Your task to perform on an android device: open app "Adobe Acrobat Reader: Edit PDF" (install if not already installed) Image 0: 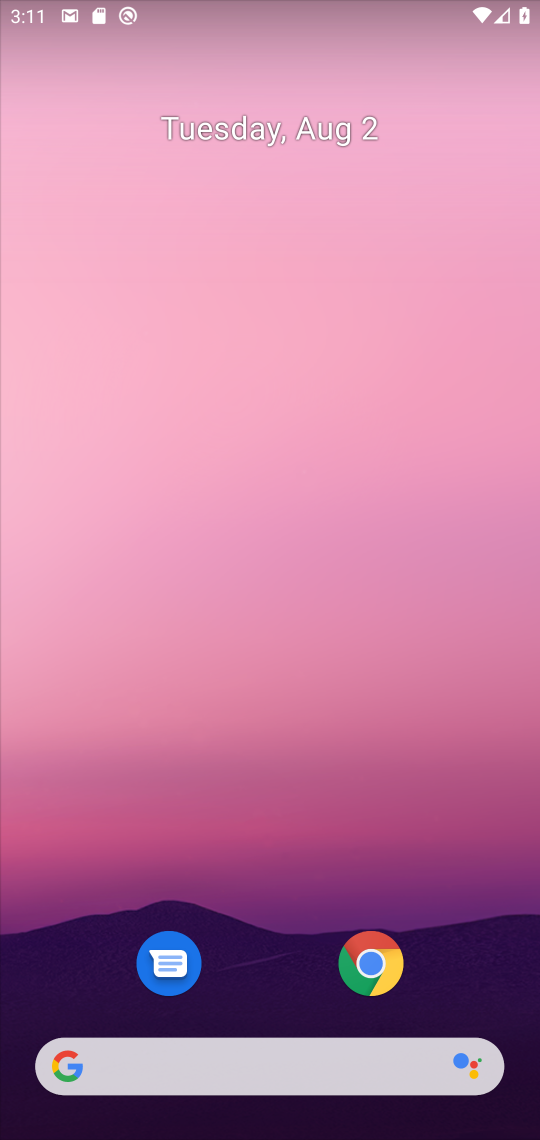
Step 0: drag from (263, 966) to (234, 201)
Your task to perform on an android device: open app "Adobe Acrobat Reader: Edit PDF" (install if not already installed) Image 1: 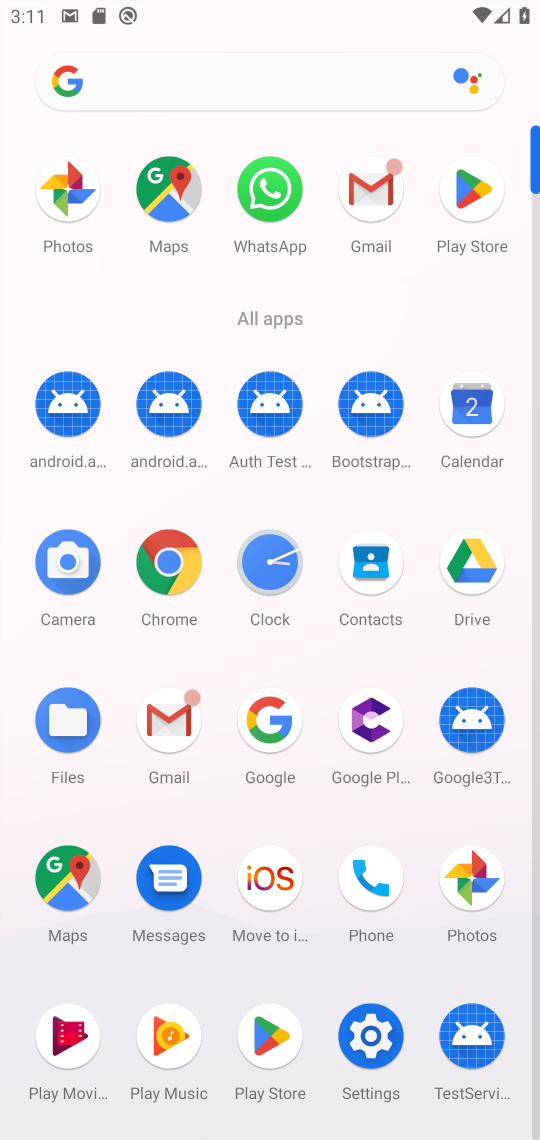
Step 1: click (482, 169)
Your task to perform on an android device: open app "Adobe Acrobat Reader: Edit PDF" (install if not already installed) Image 2: 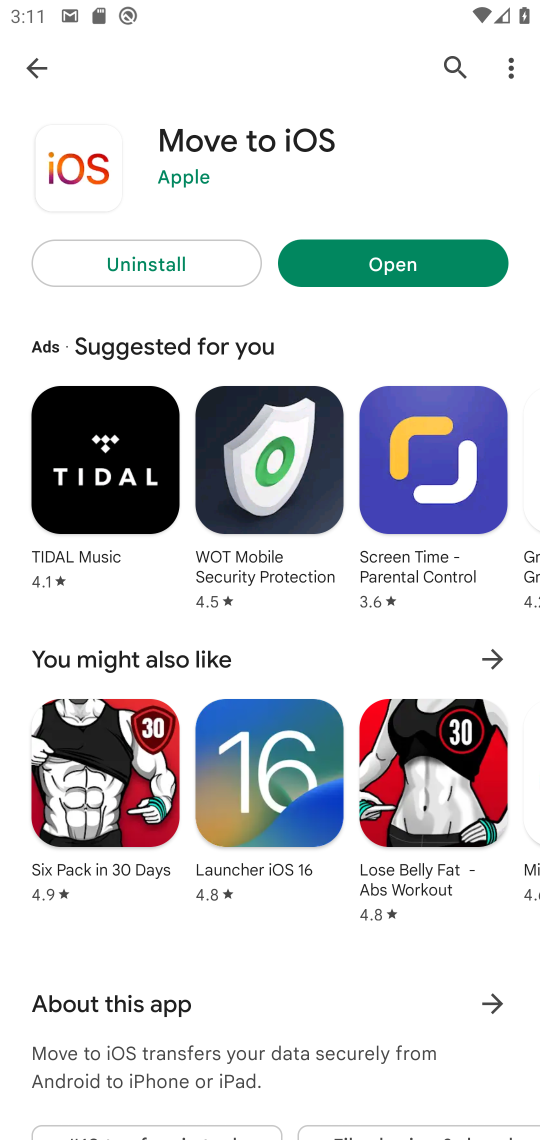
Step 2: click (451, 62)
Your task to perform on an android device: open app "Adobe Acrobat Reader: Edit PDF" (install if not already installed) Image 3: 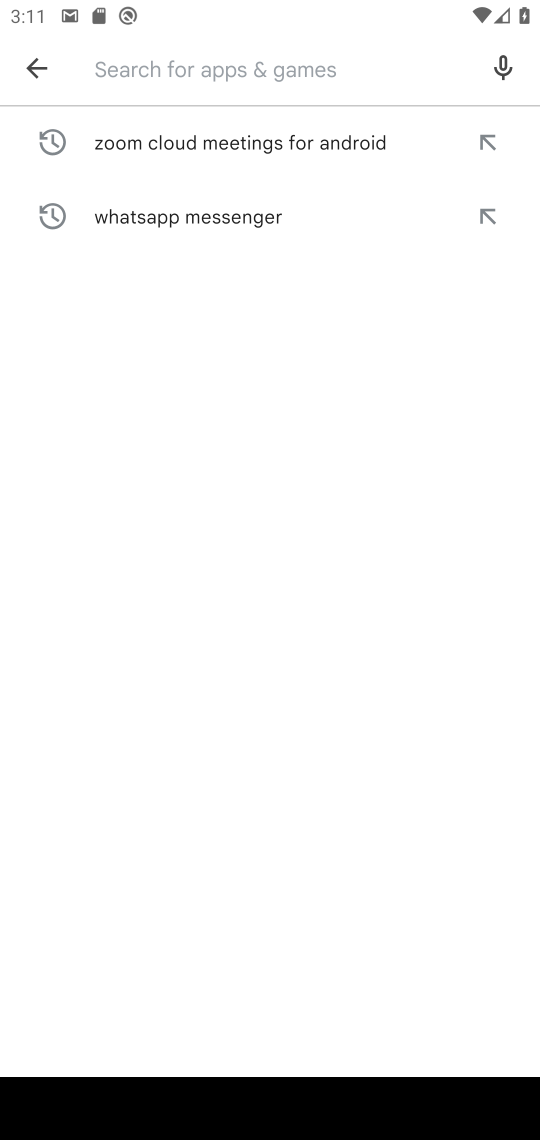
Step 3: type "adobe acrobat reader: edit pdf"
Your task to perform on an android device: open app "Adobe Acrobat Reader: Edit PDF" (install if not already installed) Image 4: 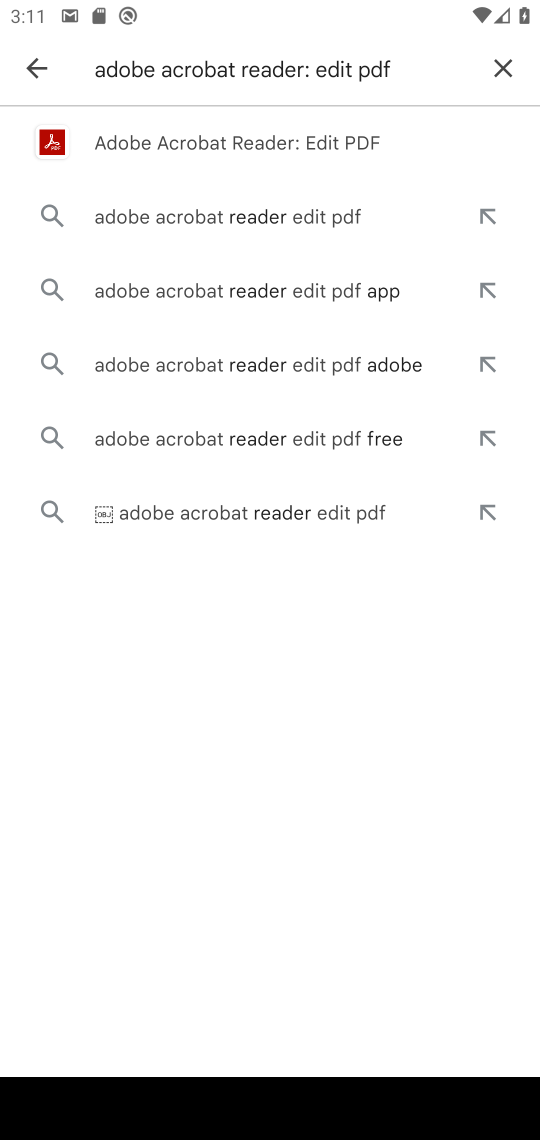
Step 4: click (359, 150)
Your task to perform on an android device: open app "Adobe Acrobat Reader: Edit PDF" (install if not already installed) Image 5: 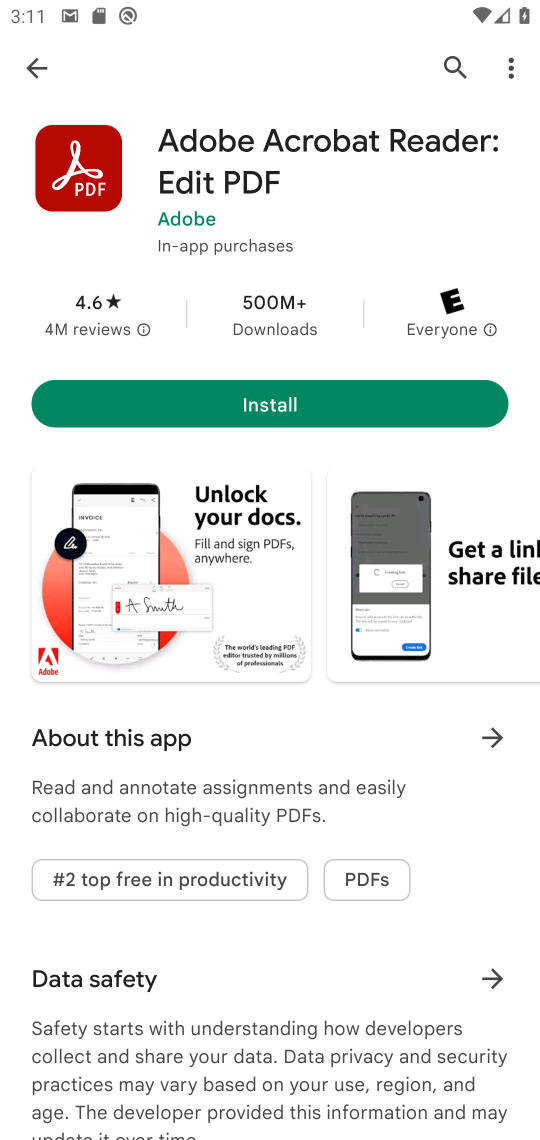
Step 5: click (333, 412)
Your task to perform on an android device: open app "Adobe Acrobat Reader: Edit PDF" (install if not already installed) Image 6: 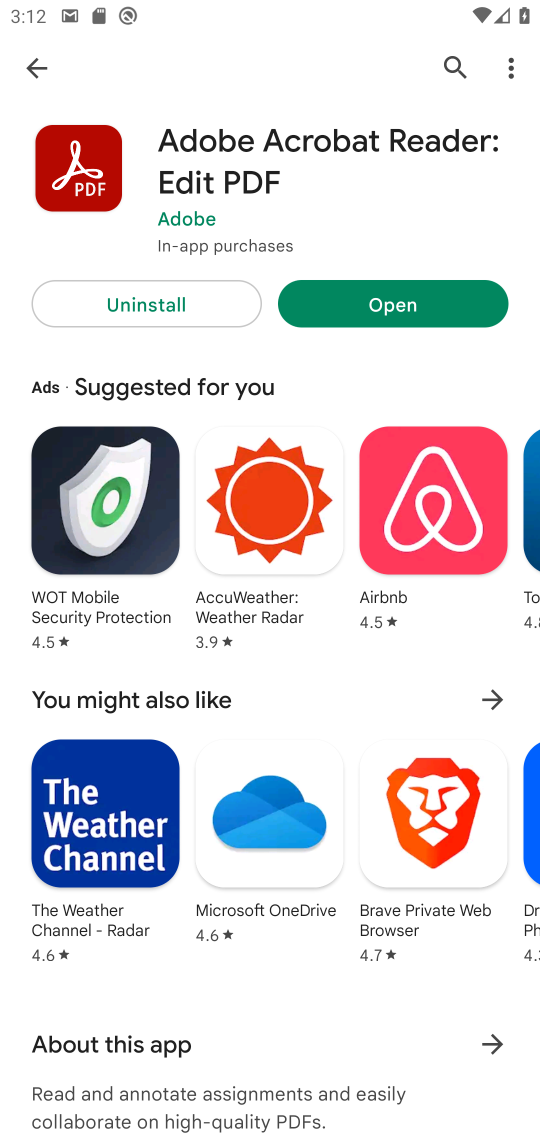
Step 6: click (432, 285)
Your task to perform on an android device: open app "Adobe Acrobat Reader: Edit PDF" (install if not already installed) Image 7: 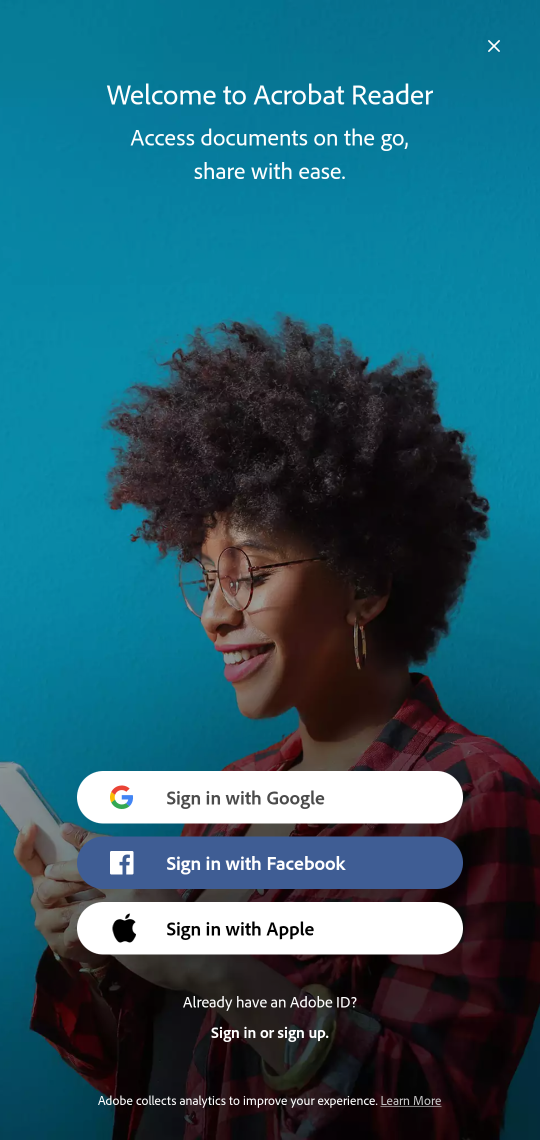
Step 7: task complete